Your task to perform on an android device: toggle pop-ups in chrome Image 0: 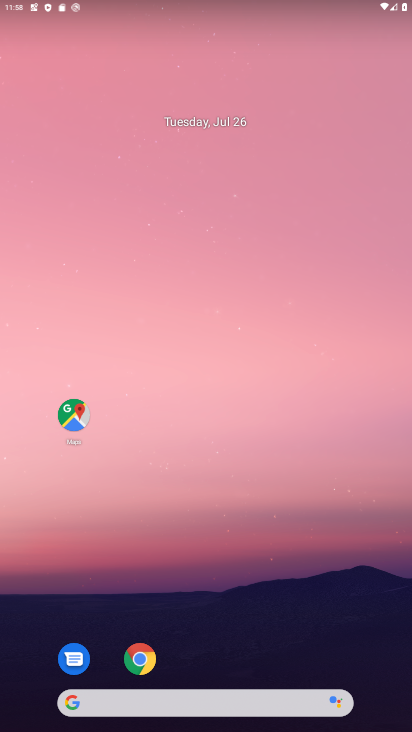
Step 0: click (136, 662)
Your task to perform on an android device: toggle pop-ups in chrome Image 1: 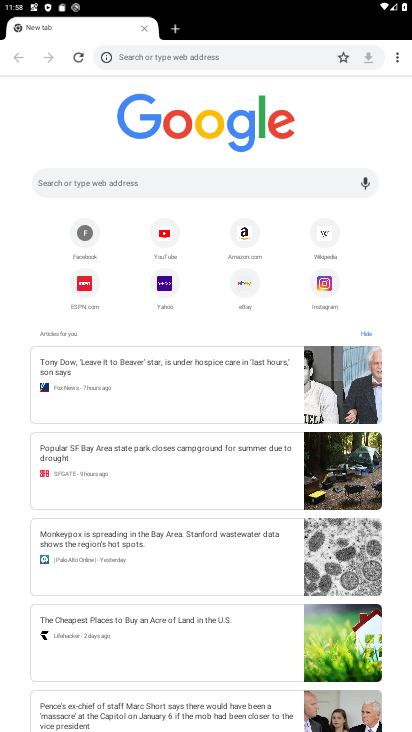
Step 1: click (399, 58)
Your task to perform on an android device: toggle pop-ups in chrome Image 2: 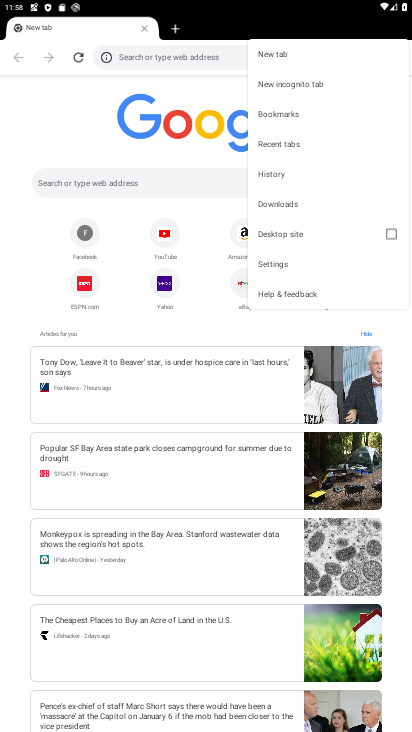
Step 2: click (293, 268)
Your task to perform on an android device: toggle pop-ups in chrome Image 3: 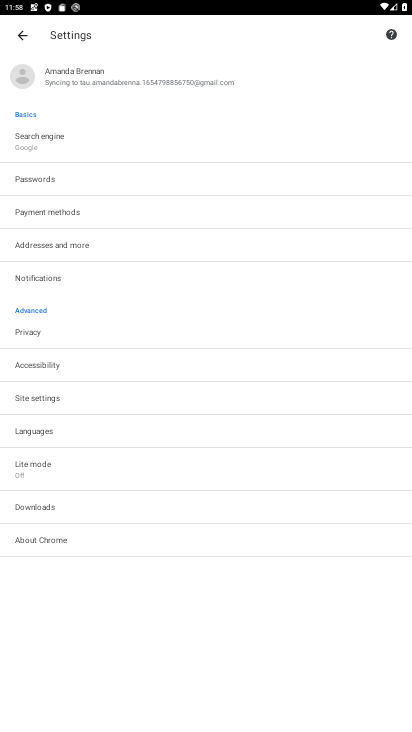
Step 3: click (35, 397)
Your task to perform on an android device: toggle pop-ups in chrome Image 4: 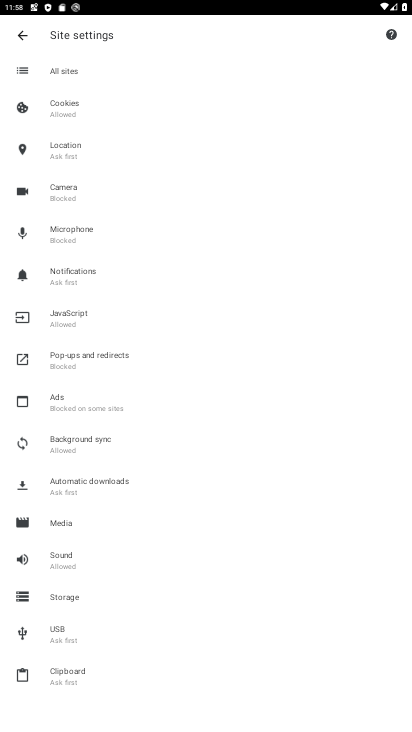
Step 4: click (87, 359)
Your task to perform on an android device: toggle pop-ups in chrome Image 5: 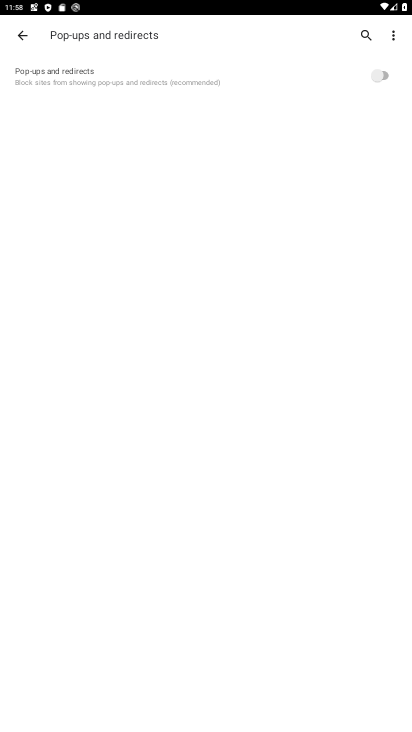
Step 5: click (382, 71)
Your task to perform on an android device: toggle pop-ups in chrome Image 6: 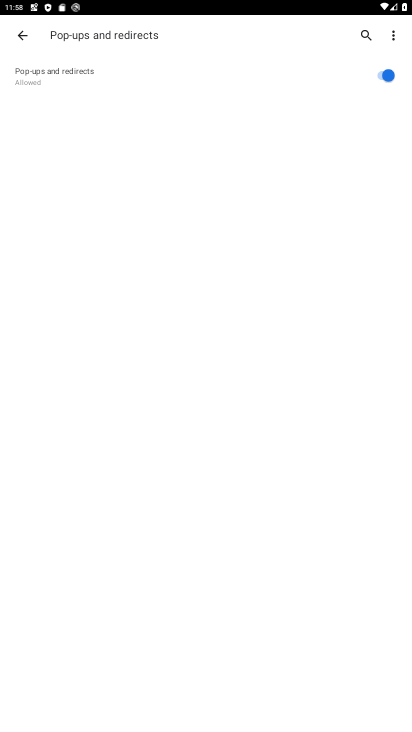
Step 6: click (385, 71)
Your task to perform on an android device: toggle pop-ups in chrome Image 7: 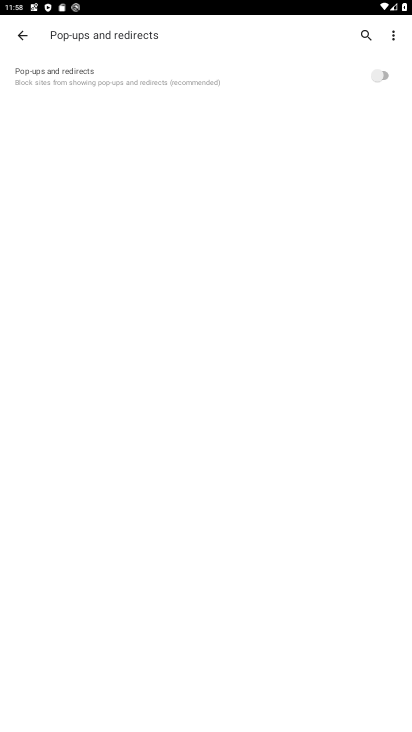
Step 7: task complete